Your task to perform on an android device: check data usage Image 0: 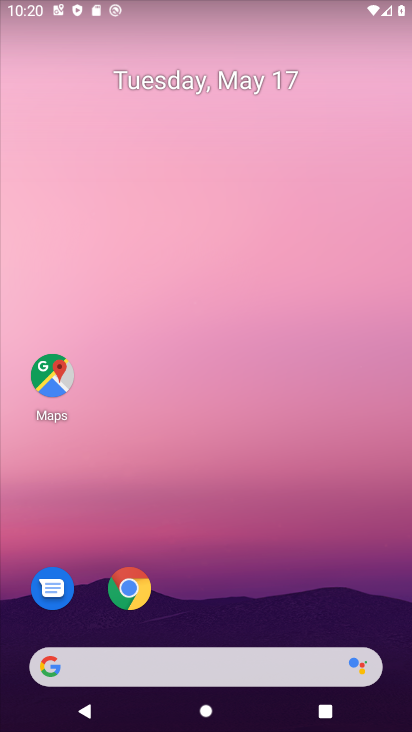
Step 0: drag from (179, 414) to (241, 32)
Your task to perform on an android device: check data usage Image 1: 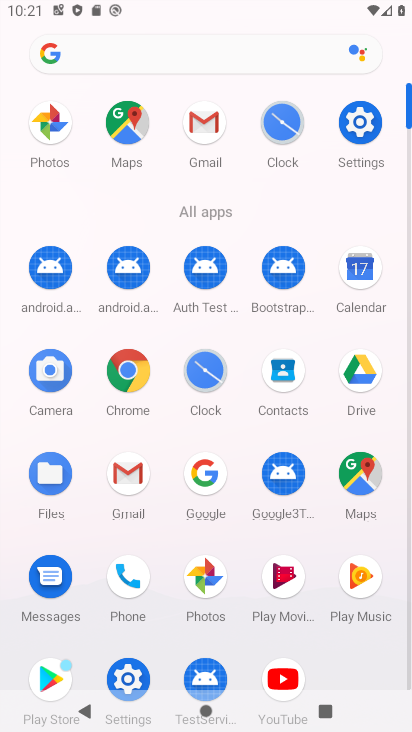
Step 1: click (351, 113)
Your task to perform on an android device: check data usage Image 2: 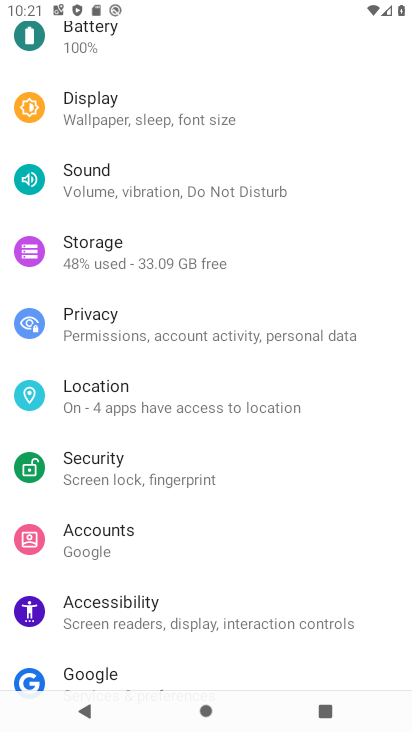
Step 2: drag from (148, 69) to (182, 410)
Your task to perform on an android device: check data usage Image 3: 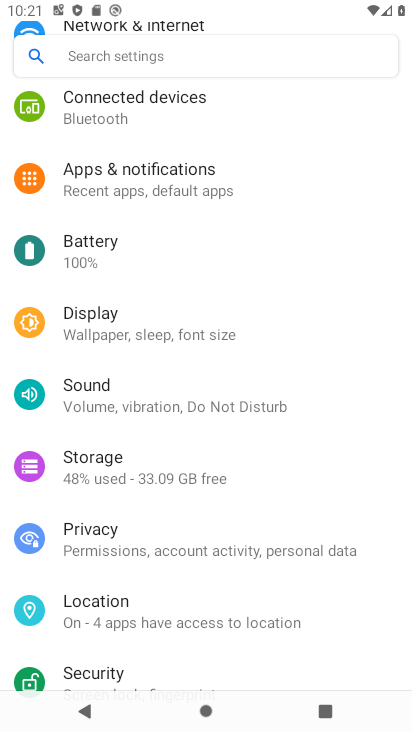
Step 3: drag from (203, 193) to (179, 400)
Your task to perform on an android device: check data usage Image 4: 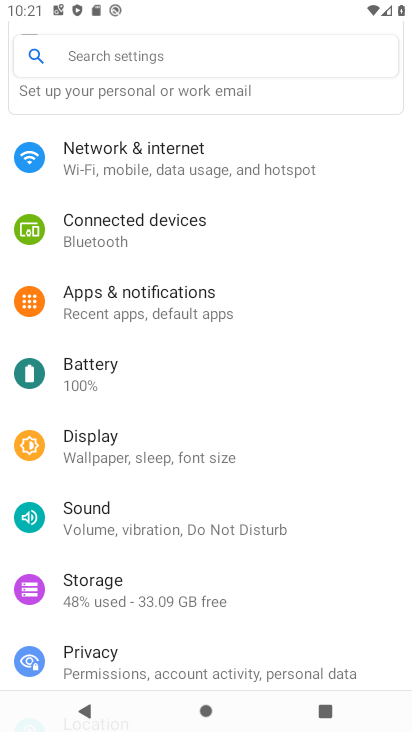
Step 4: click (193, 174)
Your task to perform on an android device: check data usage Image 5: 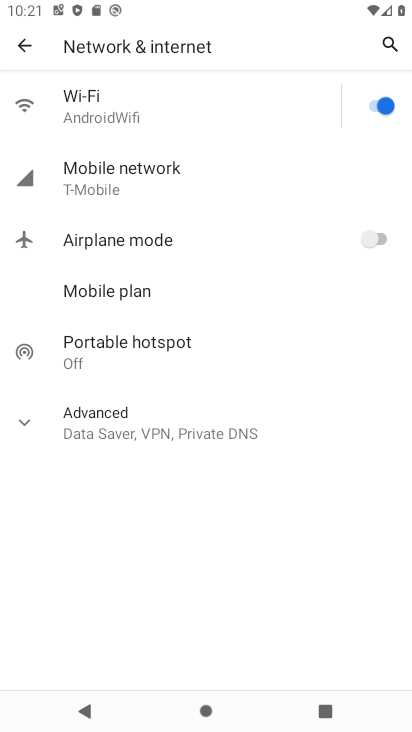
Step 5: click (197, 161)
Your task to perform on an android device: check data usage Image 6: 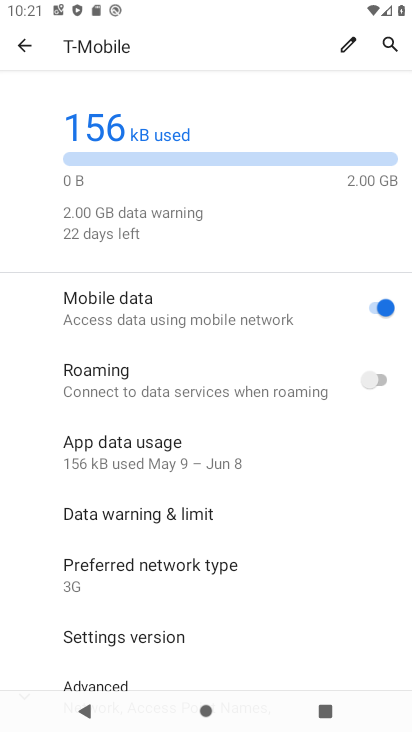
Step 6: task complete